Your task to perform on an android device: turn notification dots off Image 0: 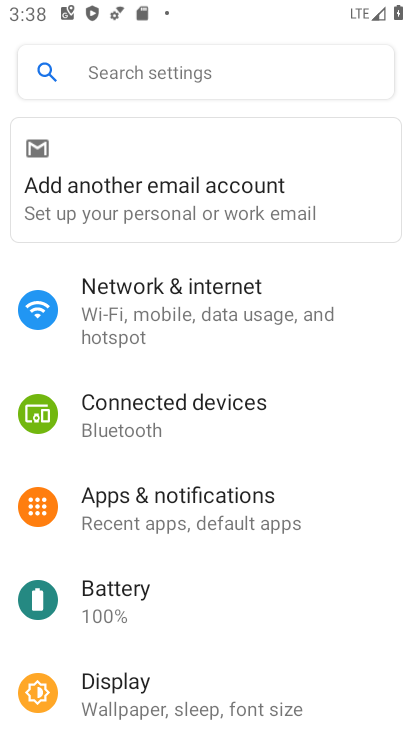
Step 0: click (197, 505)
Your task to perform on an android device: turn notification dots off Image 1: 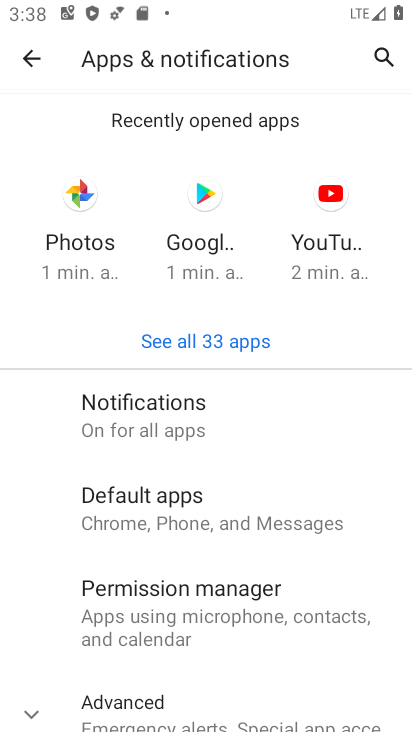
Step 1: click (168, 424)
Your task to perform on an android device: turn notification dots off Image 2: 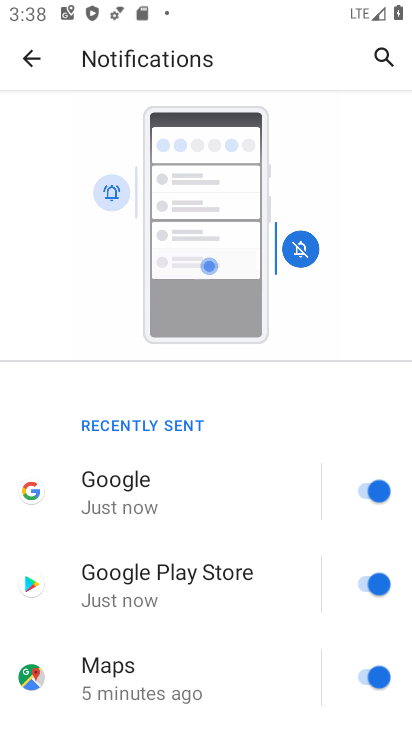
Step 2: drag from (232, 512) to (344, 1)
Your task to perform on an android device: turn notification dots off Image 3: 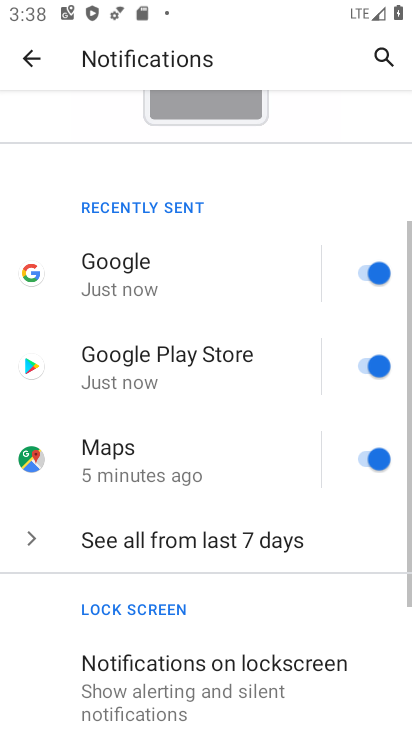
Step 3: drag from (218, 642) to (231, 196)
Your task to perform on an android device: turn notification dots off Image 4: 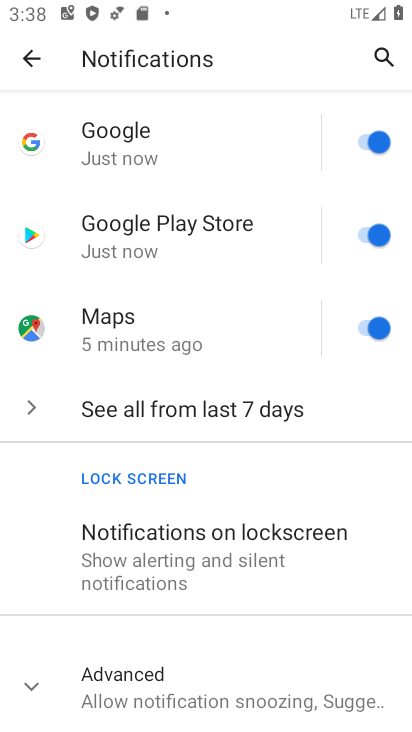
Step 4: click (130, 690)
Your task to perform on an android device: turn notification dots off Image 5: 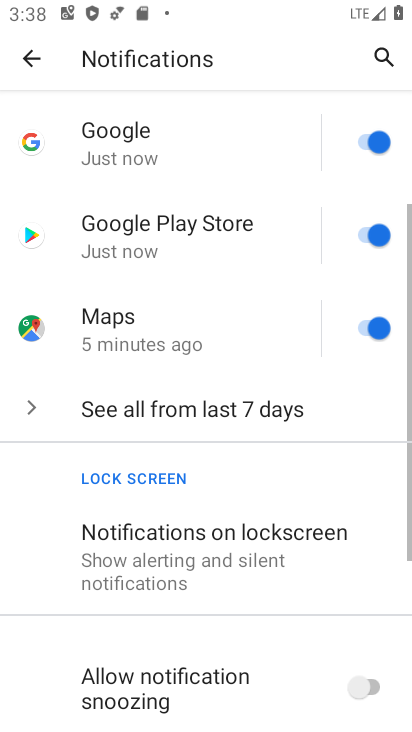
Step 5: drag from (250, 531) to (260, 171)
Your task to perform on an android device: turn notification dots off Image 6: 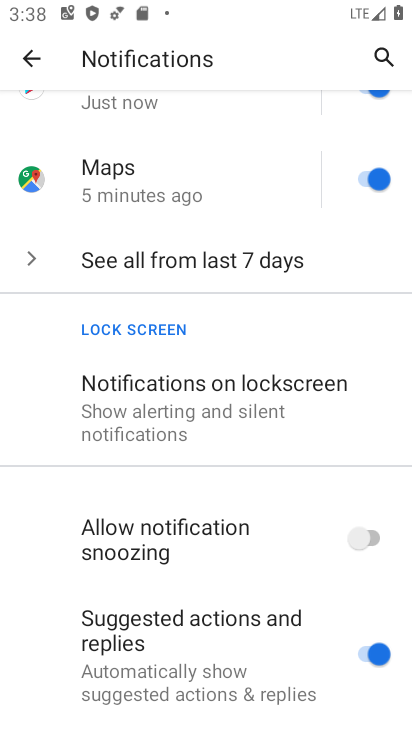
Step 6: drag from (215, 473) to (245, 216)
Your task to perform on an android device: turn notification dots off Image 7: 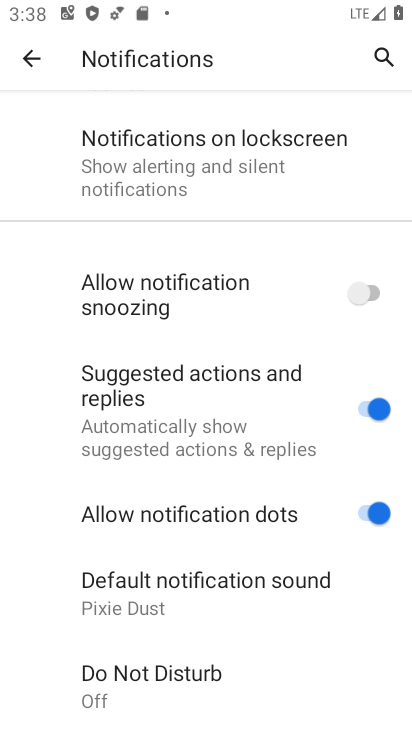
Step 7: click (369, 521)
Your task to perform on an android device: turn notification dots off Image 8: 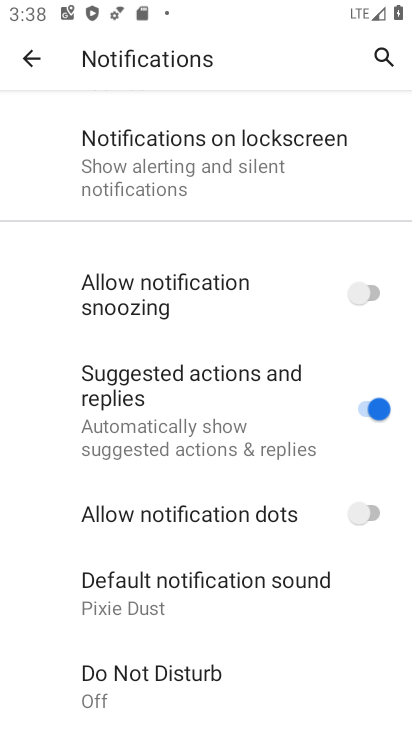
Step 8: task complete